Your task to perform on an android device: Go to Yahoo.com Image 0: 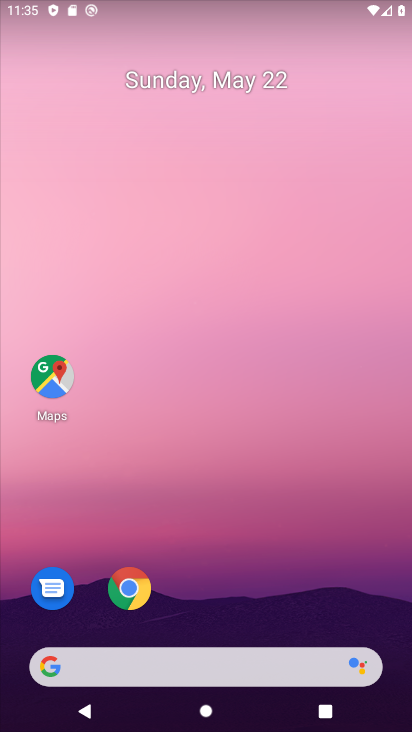
Step 0: drag from (284, 598) to (232, 211)
Your task to perform on an android device: Go to Yahoo.com Image 1: 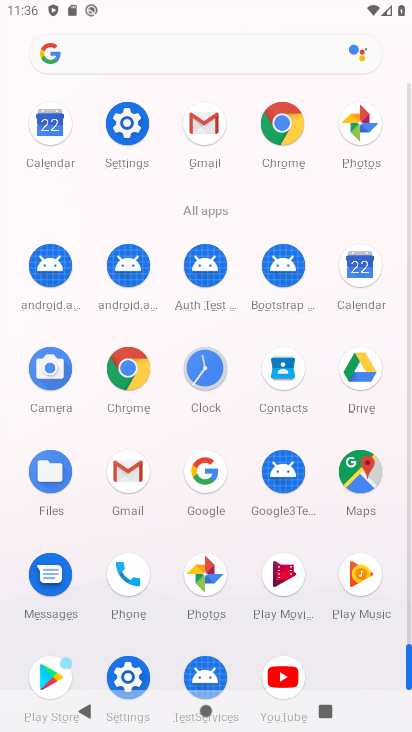
Step 1: click (282, 123)
Your task to perform on an android device: Go to Yahoo.com Image 2: 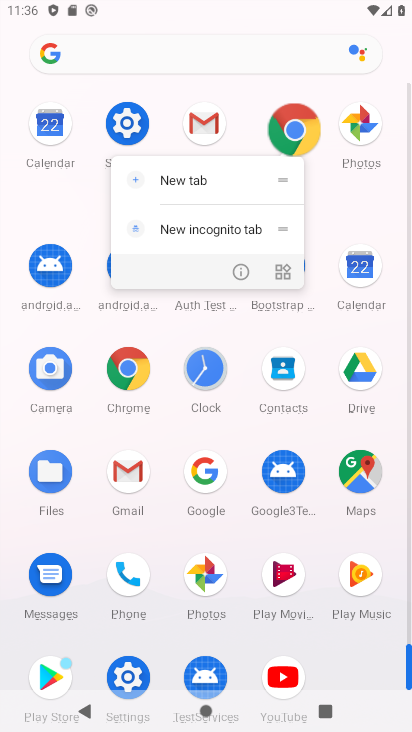
Step 2: click (293, 129)
Your task to perform on an android device: Go to Yahoo.com Image 3: 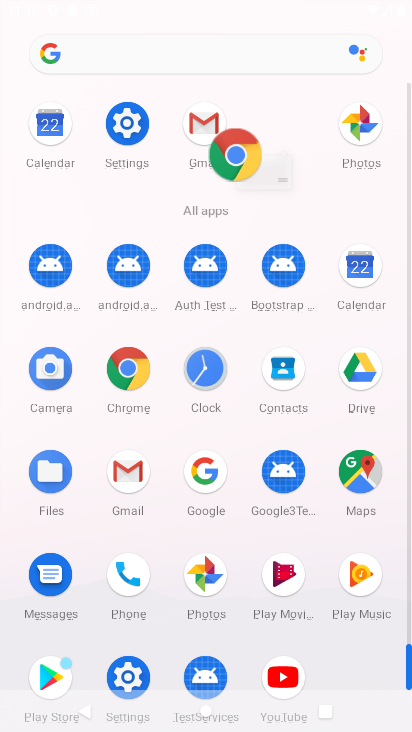
Step 3: click (296, 131)
Your task to perform on an android device: Go to Yahoo.com Image 4: 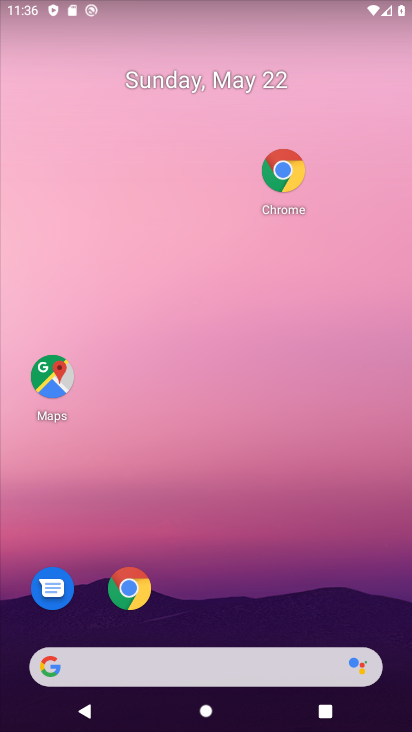
Step 4: drag from (217, 467) to (217, 210)
Your task to perform on an android device: Go to Yahoo.com Image 5: 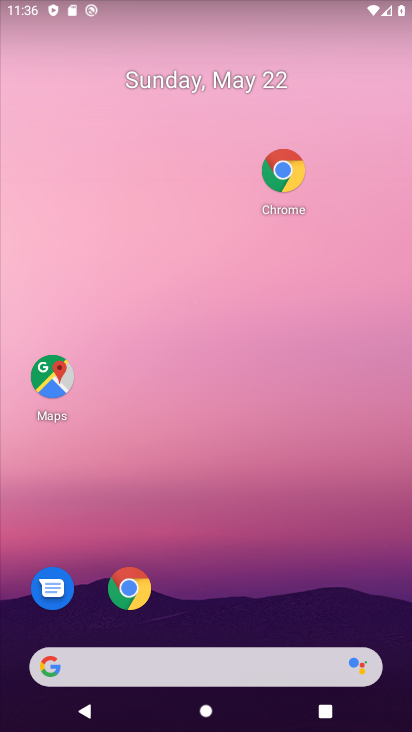
Step 5: drag from (299, 617) to (281, 65)
Your task to perform on an android device: Go to Yahoo.com Image 6: 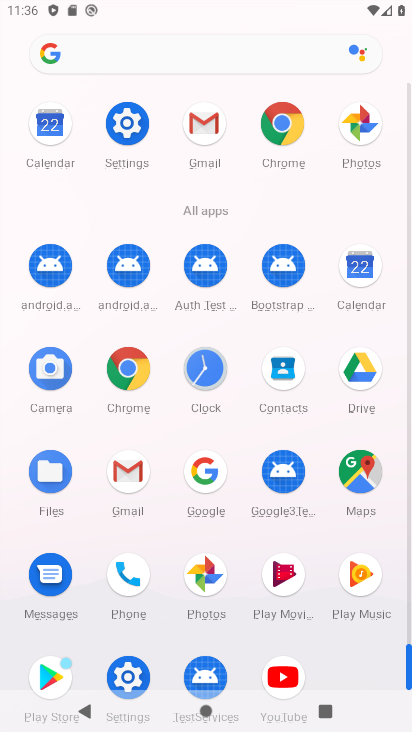
Step 6: click (290, 131)
Your task to perform on an android device: Go to Yahoo.com Image 7: 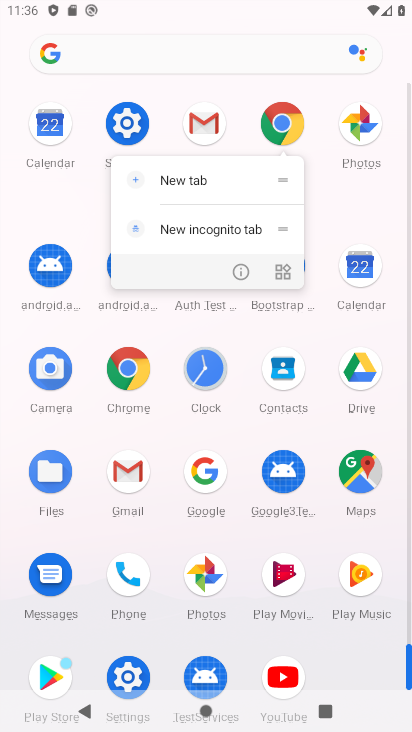
Step 7: click (290, 126)
Your task to perform on an android device: Go to Yahoo.com Image 8: 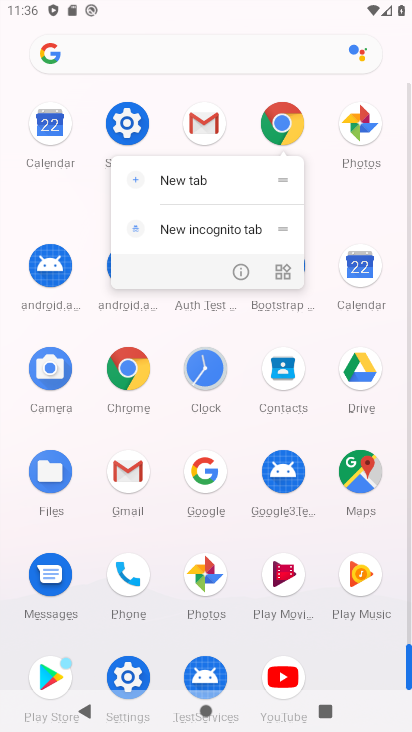
Step 8: click (288, 124)
Your task to perform on an android device: Go to Yahoo.com Image 9: 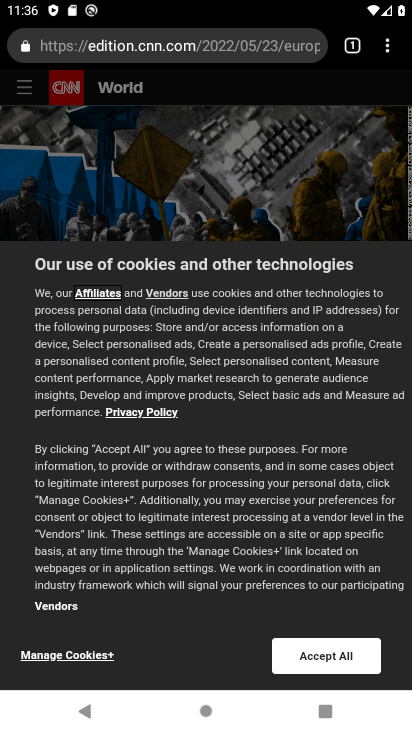
Step 9: drag from (389, 45) to (224, 98)
Your task to perform on an android device: Go to Yahoo.com Image 10: 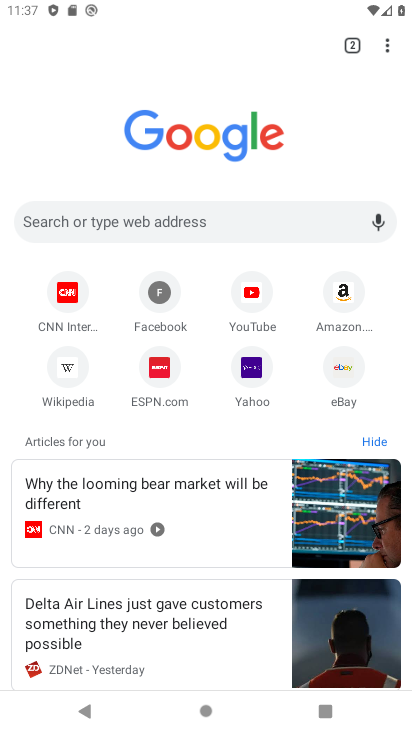
Step 10: click (243, 368)
Your task to perform on an android device: Go to Yahoo.com Image 11: 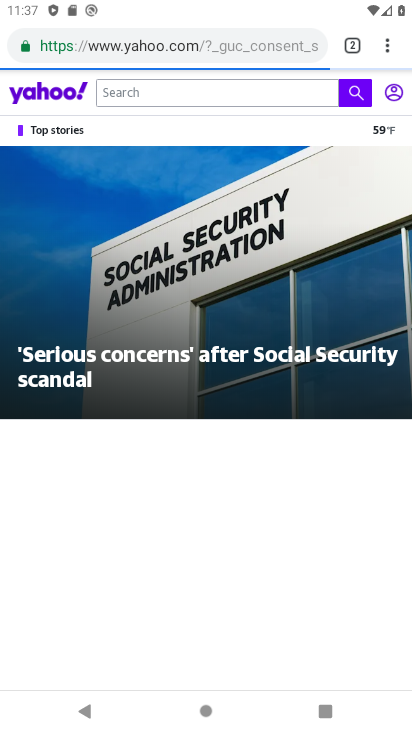
Step 11: task complete